Your task to perform on an android device: turn off picture-in-picture Image 0: 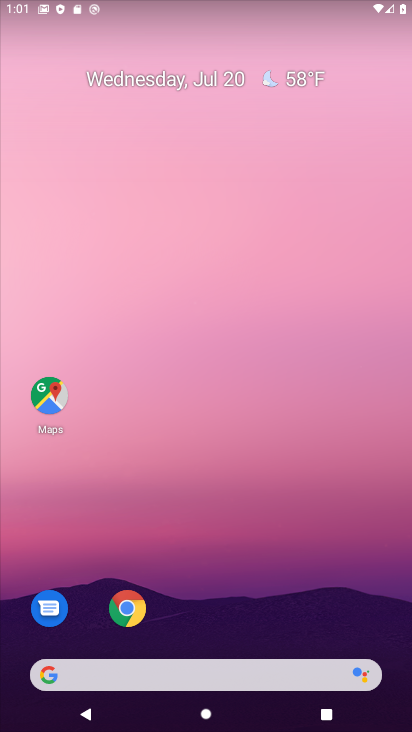
Step 0: drag from (243, 714) to (227, 222)
Your task to perform on an android device: turn off picture-in-picture Image 1: 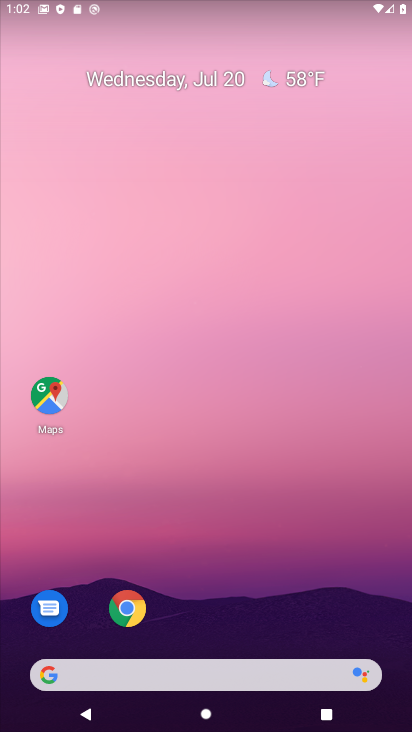
Step 1: drag from (225, 725) to (229, 295)
Your task to perform on an android device: turn off picture-in-picture Image 2: 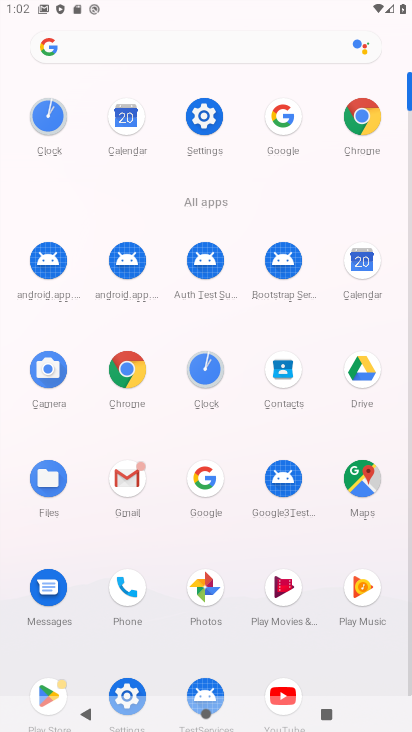
Step 2: click (209, 117)
Your task to perform on an android device: turn off picture-in-picture Image 3: 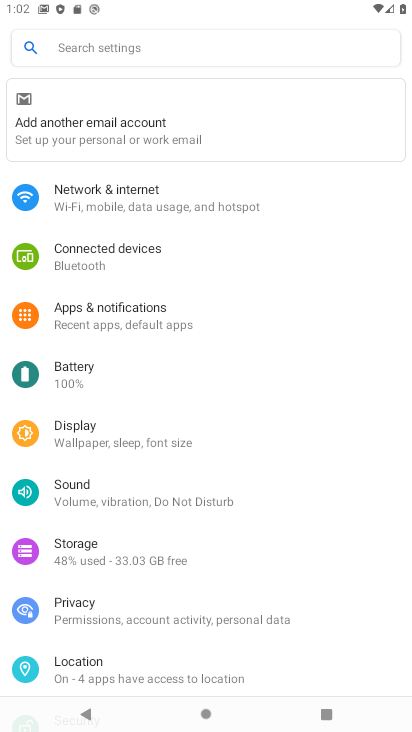
Step 3: click (107, 318)
Your task to perform on an android device: turn off picture-in-picture Image 4: 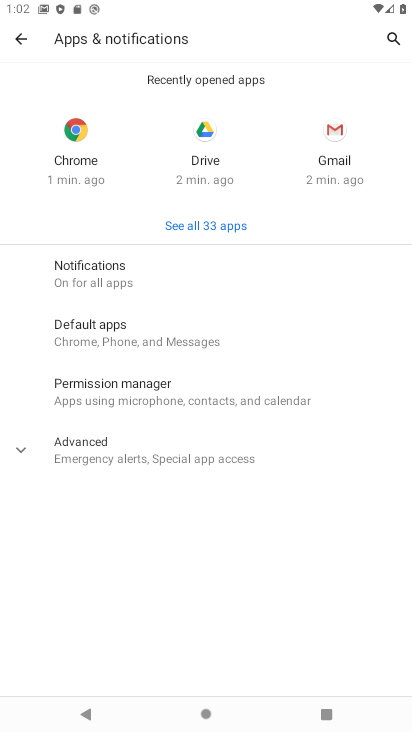
Step 4: click (103, 456)
Your task to perform on an android device: turn off picture-in-picture Image 5: 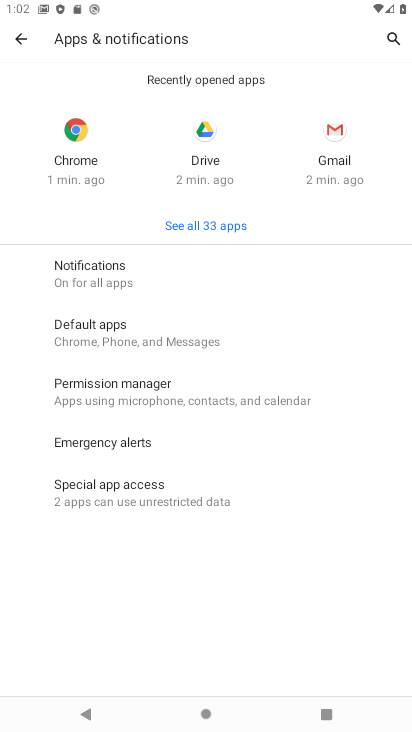
Step 5: click (101, 487)
Your task to perform on an android device: turn off picture-in-picture Image 6: 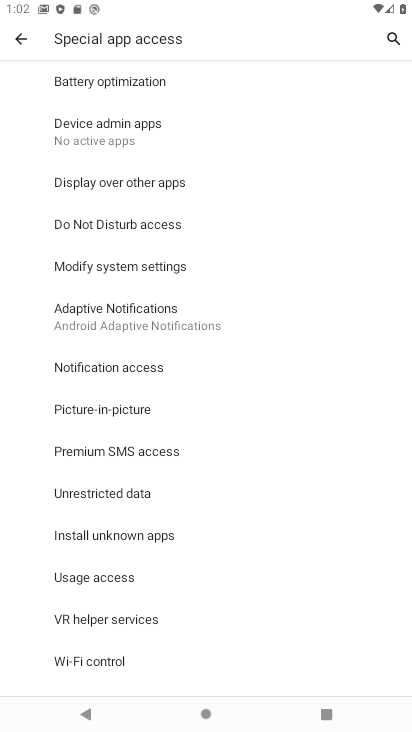
Step 6: click (87, 410)
Your task to perform on an android device: turn off picture-in-picture Image 7: 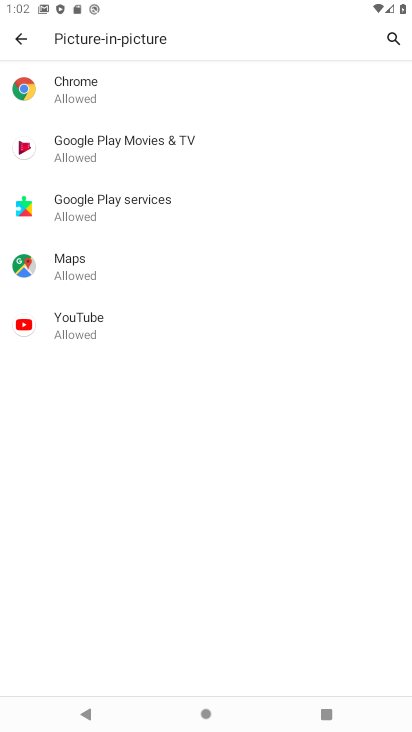
Step 7: click (68, 324)
Your task to perform on an android device: turn off picture-in-picture Image 8: 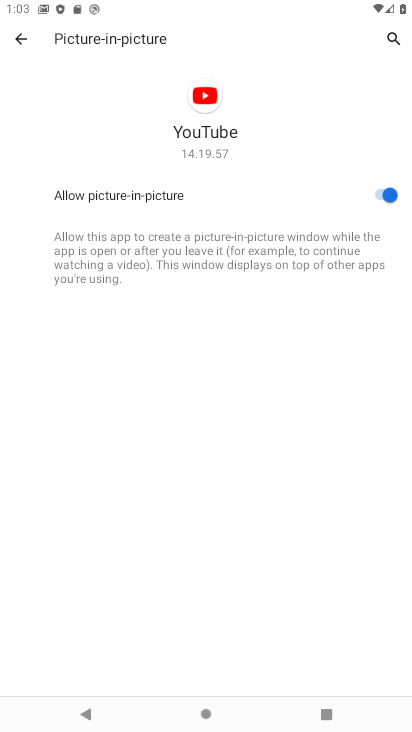
Step 8: click (376, 189)
Your task to perform on an android device: turn off picture-in-picture Image 9: 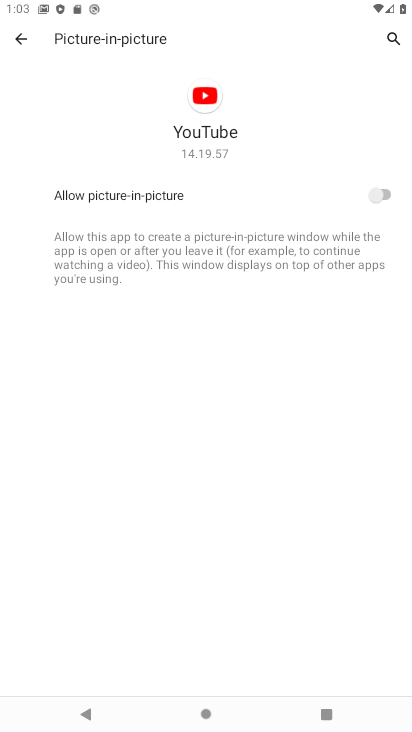
Step 9: task complete